Your task to perform on an android device: Toggle the flashlight Image 0: 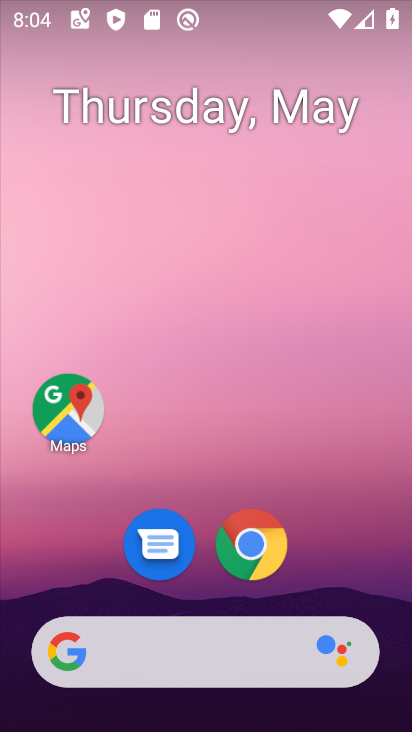
Step 0: press home button
Your task to perform on an android device: Toggle the flashlight Image 1: 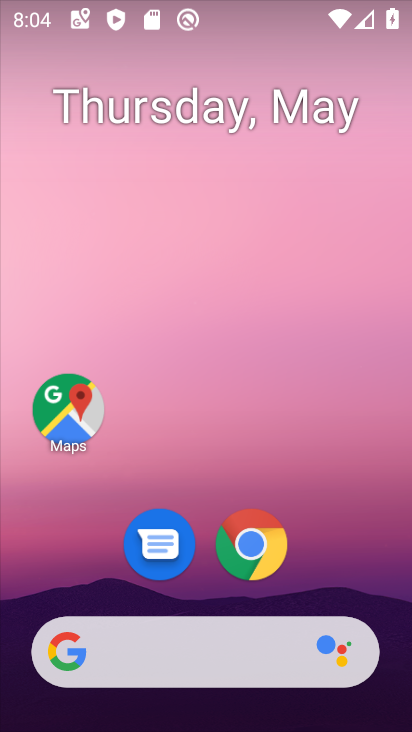
Step 1: task complete